Your task to perform on an android device: toggle sleep mode Image 0: 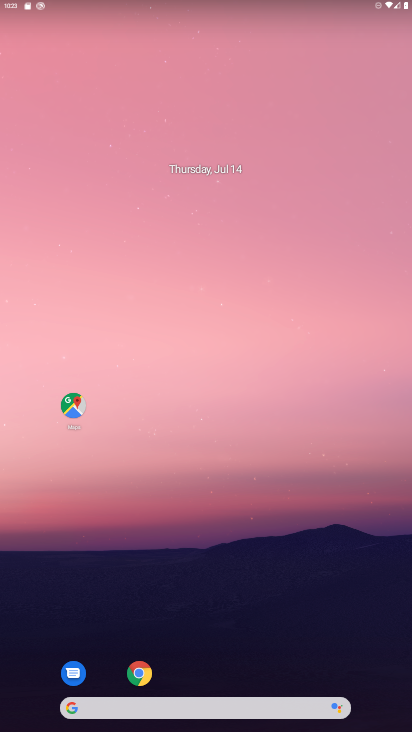
Step 0: drag from (277, 613) to (278, 99)
Your task to perform on an android device: toggle sleep mode Image 1: 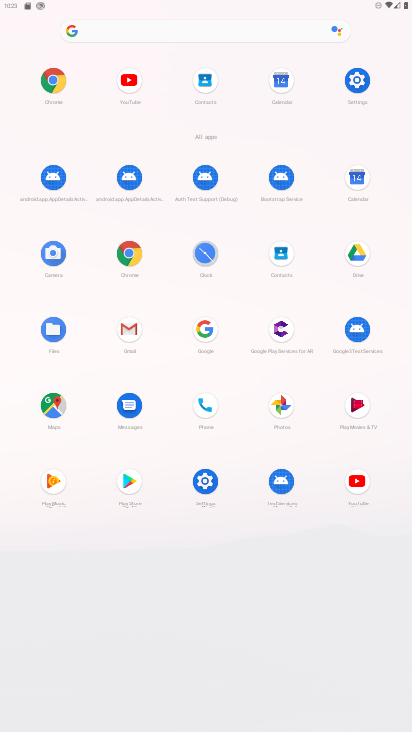
Step 1: click (358, 79)
Your task to perform on an android device: toggle sleep mode Image 2: 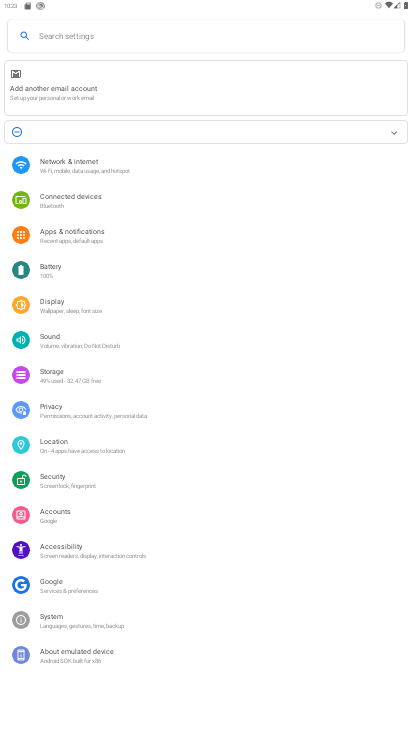
Step 2: click (52, 316)
Your task to perform on an android device: toggle sleep mode Image 3: 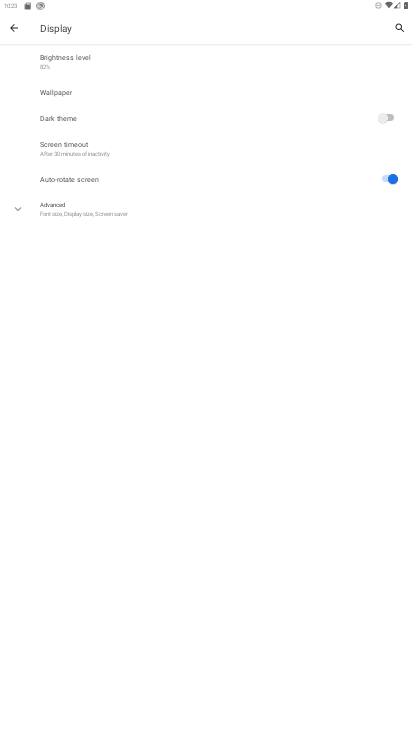
Step 3: task complete